Your task to perform on an android device: clear history in the chrome app Image 0: 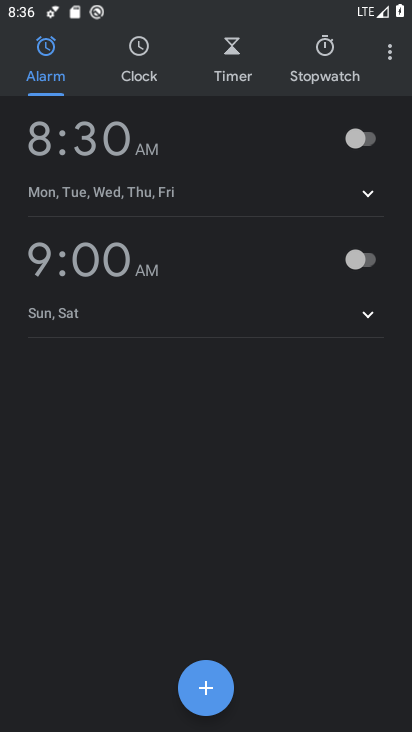
Step 0: press home button
Your task to perform on an android device: clear history in the chrome app Image 1: 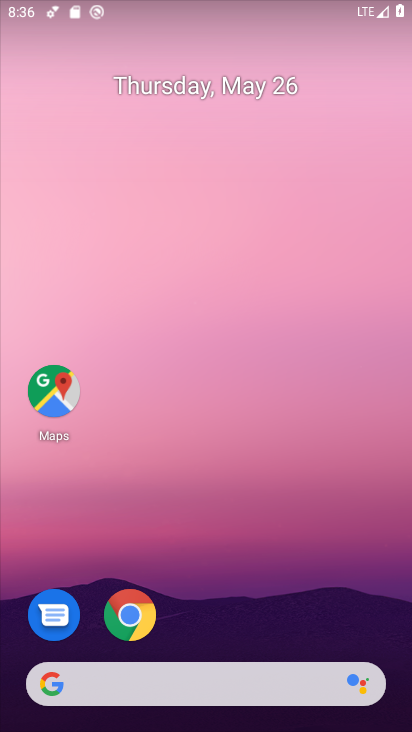
Step 1: drag from (248, 569) to (247, 234)
Your task to perform on an android device: clear history in the chrome app Image 2: 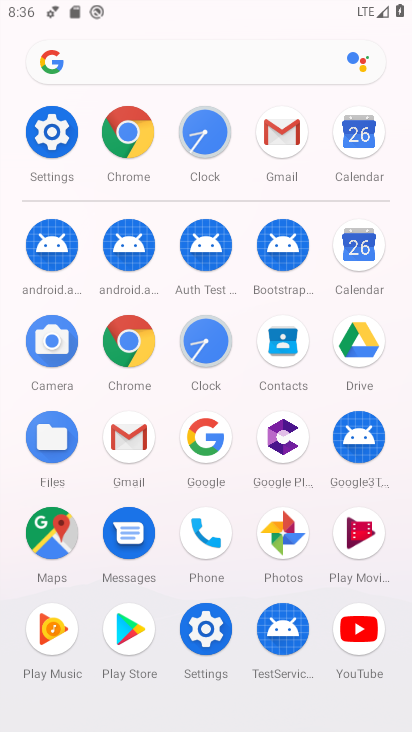
Step 2: click (128, 340)
Your task to perform on an android device: clear history in the chrome app Image 3: 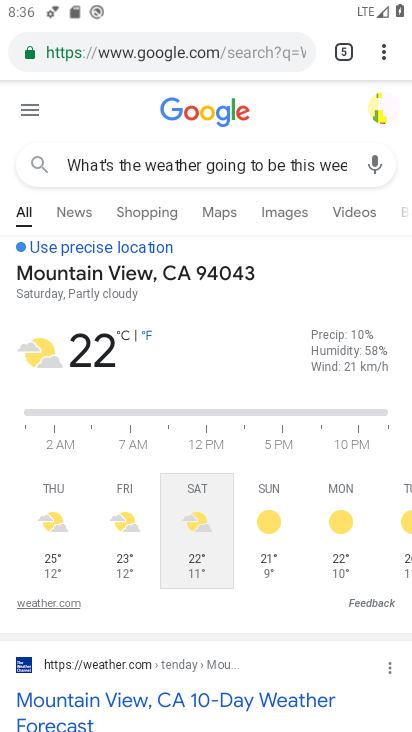
Step 3: click (381, 54)
Your task to perform on an android device: clear history in the chrome app Image 4: 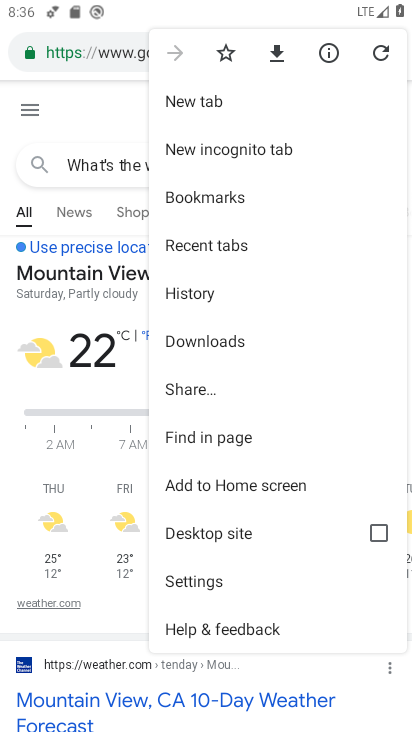
Step 4: drag from (257, 545) to (271, 247)
Your task to perform on an android device: clear history in the chrome app Image 5: 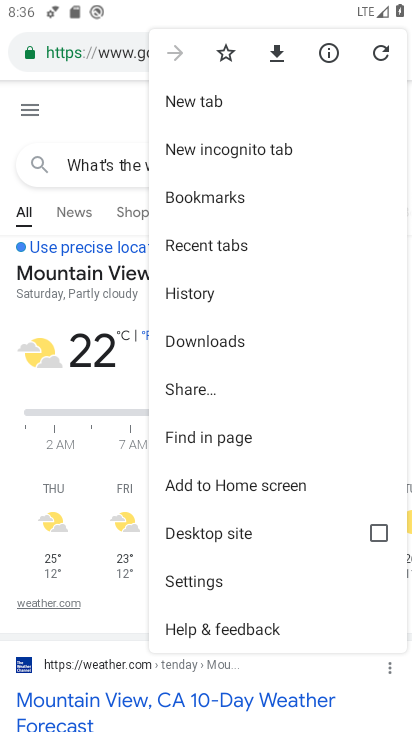
Step 5: click (232, 574)
Your task to perform on an android device: clear history in the chrome app Image 6: 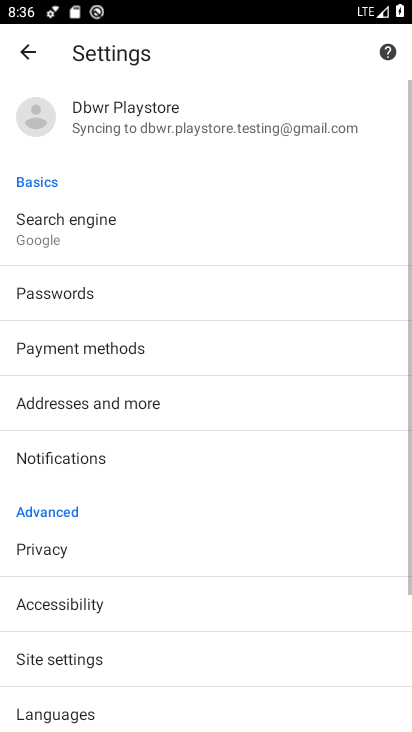
Step 6: drag from (202, 565) to (241, 340)
Your task to perform on an android device: clear history in the chrome app Image 7: 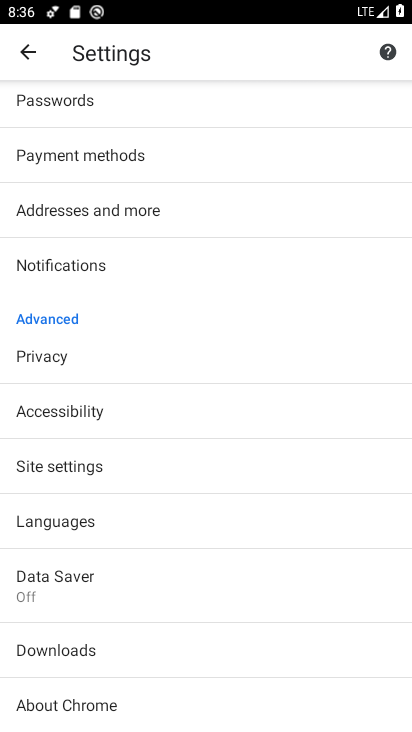
Step 7: drag from (236, 203) to (249, 546)
Your task to perform on an android device: clear history in the chrome app Image 8: 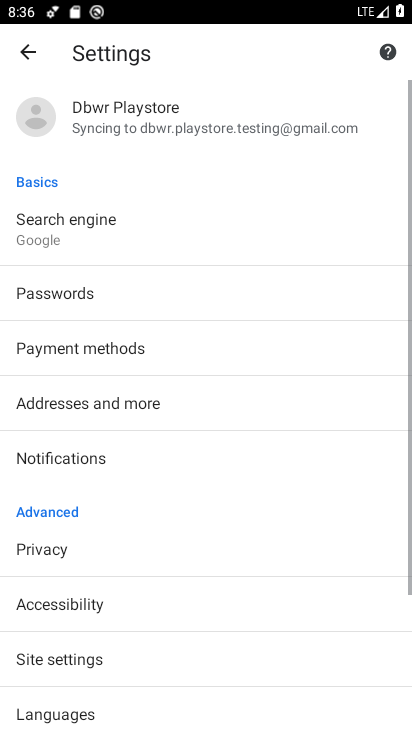
Step 8: click (31, 60)
Your task to perform on an android device: clear history in the chrome app Image 9: 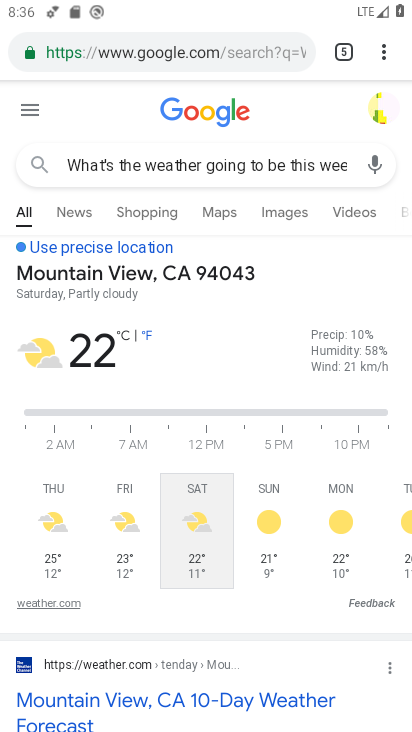
Step 9: click (384, 50)
Your task to perform on an android device: clear history in the chrome app Image 10: 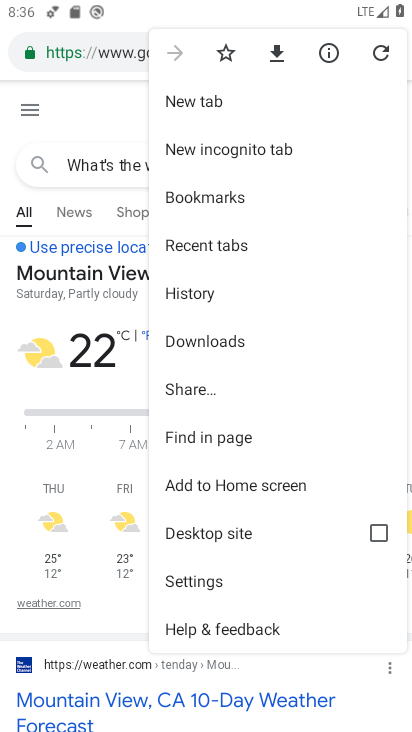
Step 10: click (219, 306)
Your task to perform on an android device: clear history in the chrome app Image 11: 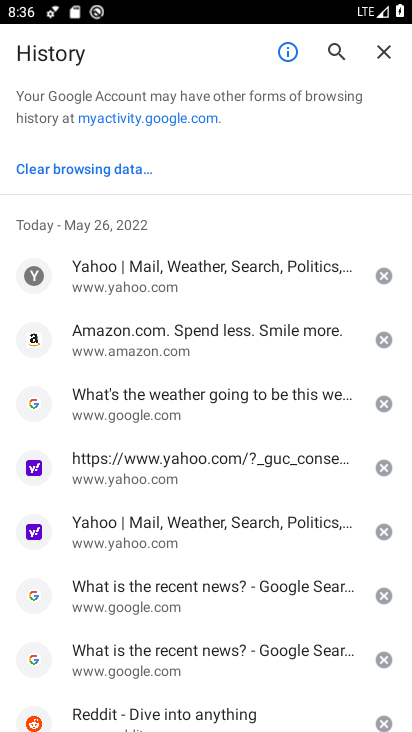
Step 11: click (101, 163)
Your task to perform on an android device: clear history in the chrome app Image 12: 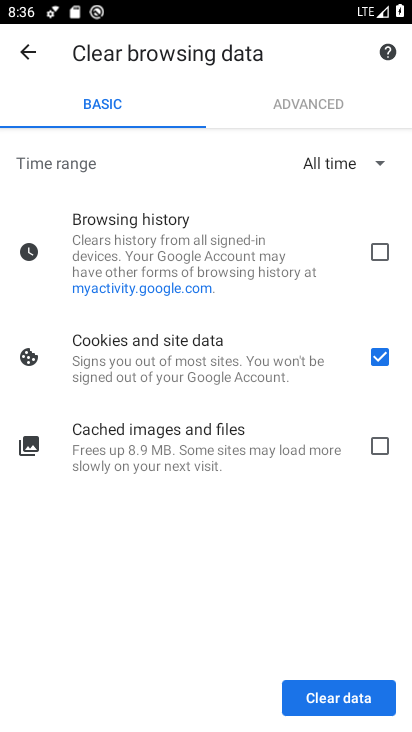
Step 12: click (315, 685)
Your task to perform on an android device: clear history in the chrome app Image 13: 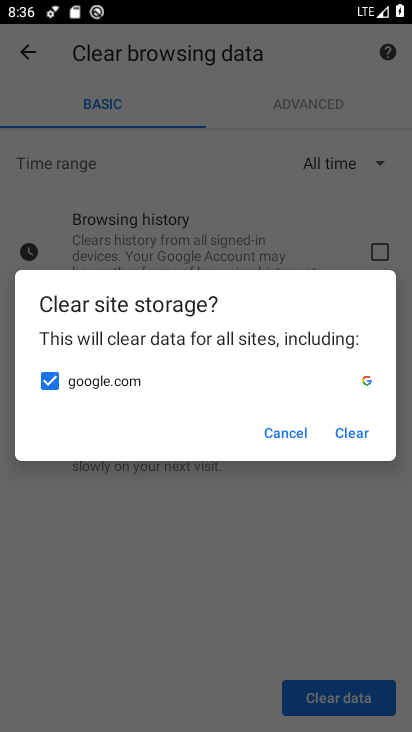
Step 13: click (345, 439)
Your task to perform on an android device: clear history in the chrome app Image 14: 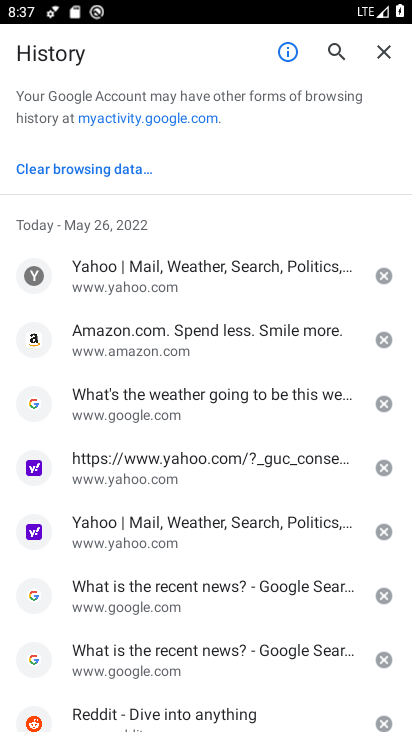
Step 14: task complete